Your task to perform on an android device: Go to notification settings Image 0: 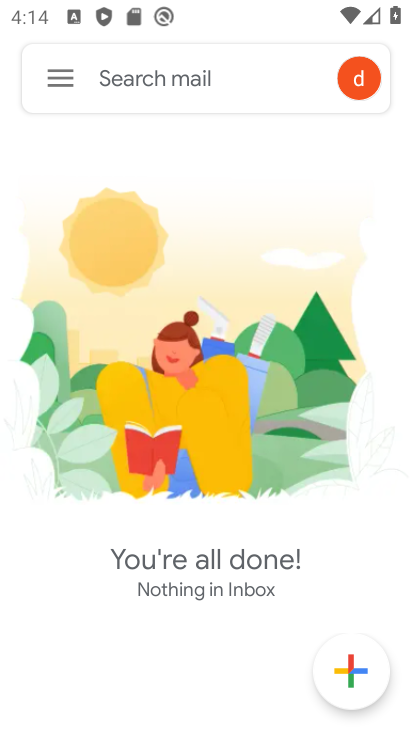
Step 0: press home button
Your task to perform on an android device: Go to notification settings Image 1: 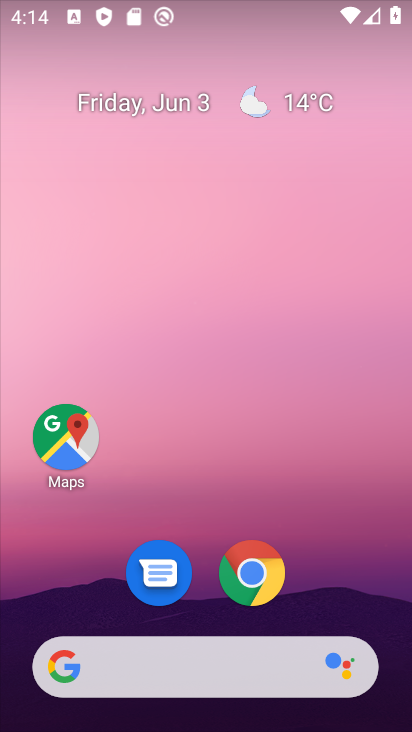
Step 1: drag from (194, 560) to (189, 6)
Your task to perform on an android device: Go to notification settings Image 2: 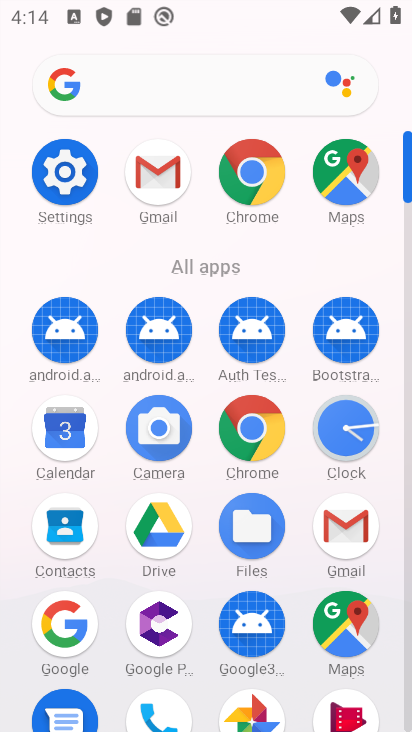
Step 2: click (64, 166)
Your task to perform on an android device: Go to notification settings Image 3: 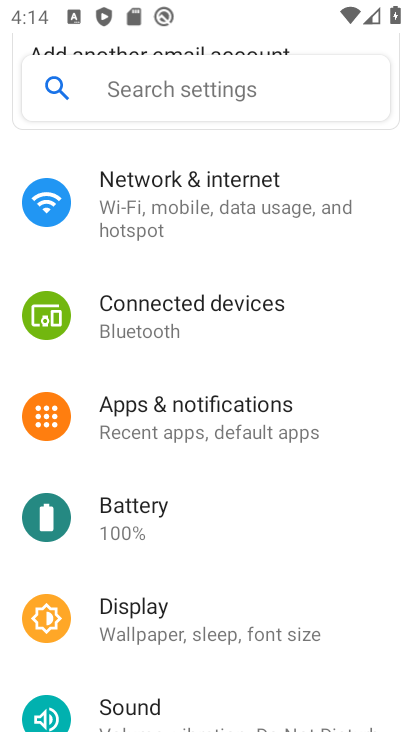
Step 3: click (196, 428)
Your task to perform on an android device: Go to notification settings Image 4: 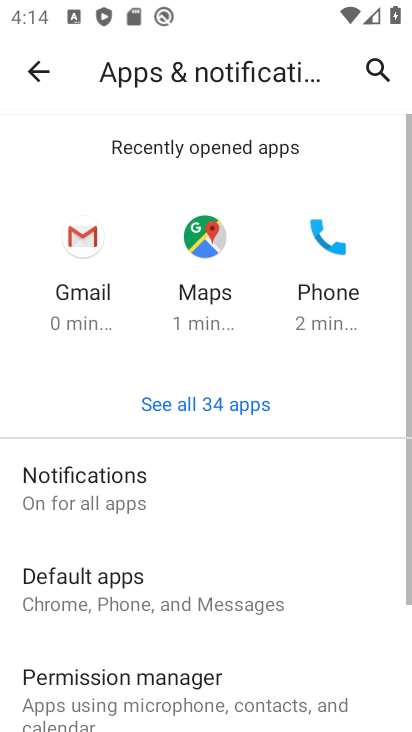
Step 4: task complete